Your task to perform on an android device: Go to sound settings Image 0: 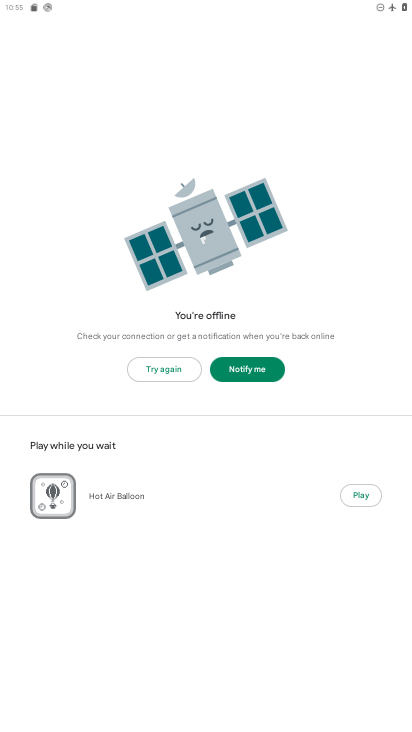
Step 0: press home button
Your task to perform on an android device: Go to sound settings Image 1: 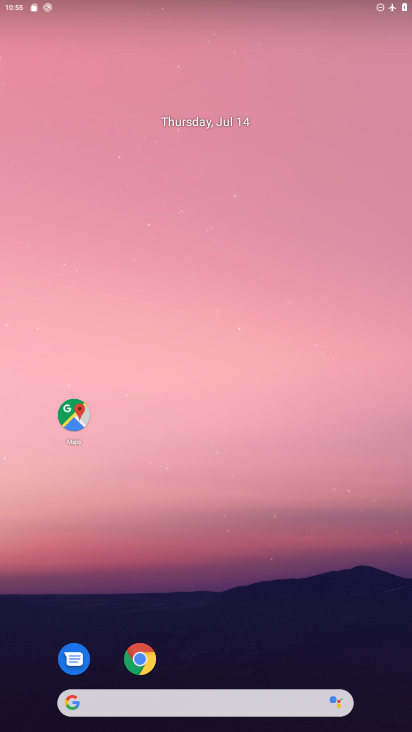
Step 1: drag from (300, 634) to (260, 69)
Your task to perform on an android device: Go to sound settings Image 2: 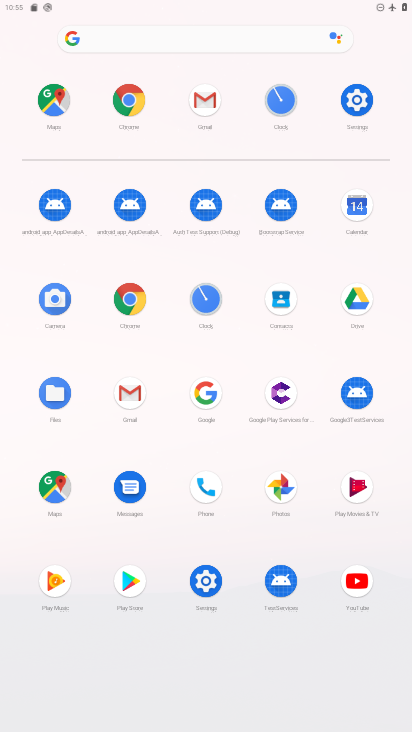
Step 2: click (361, 97)
Your task to perform on an android device: Go to sound settings Image 3: 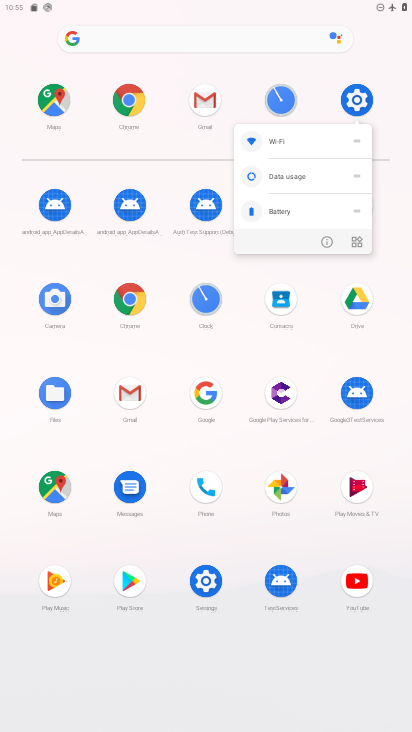
Step 3: click (355, 99)
Your task to perform on an android device: Go to sound settings Image 4: 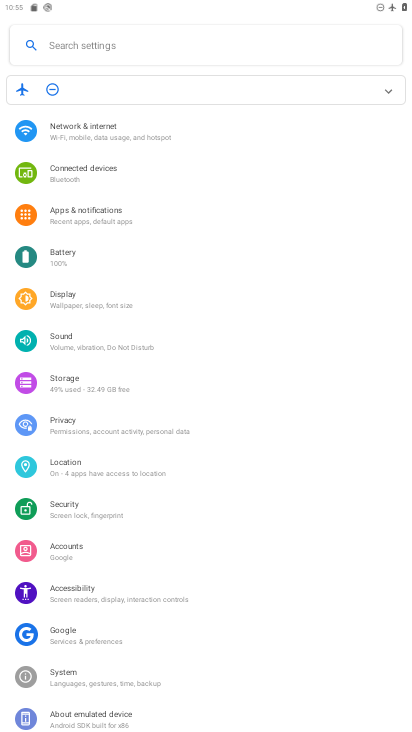
Step 4: click (95, 344)
Your task to perform on an android device: Go to sound settings Image 5: 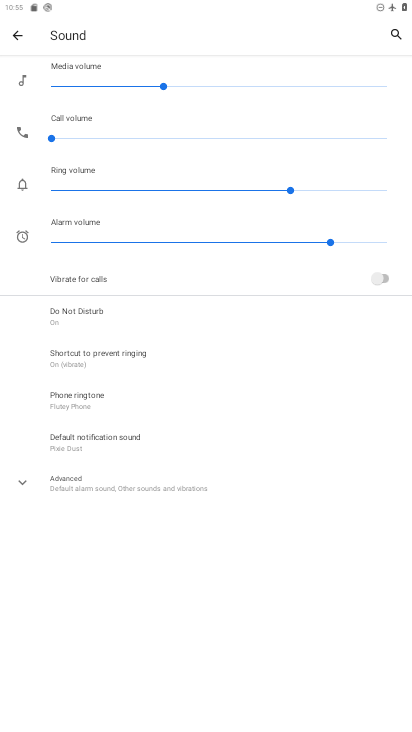
Step 5: task complete